Your task to perform on an android device: turn off notifications in google photos Image 0: 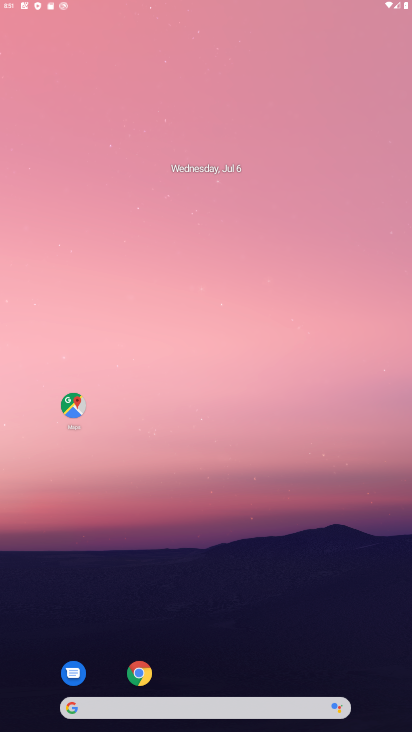
Step 0: click (276, 127)
Your task to perform on an android device: turn off notifications in google photos Image 1: 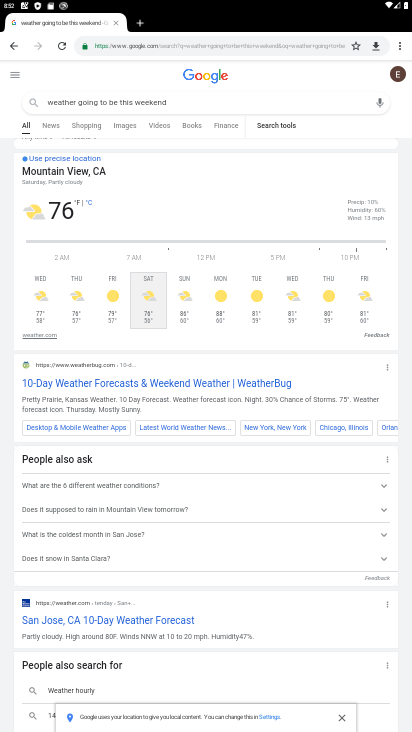
Step 1: drag from (232, 646) to (260, 477)
Your task to perform on an android device: turn off notifications in google photos Image 2: 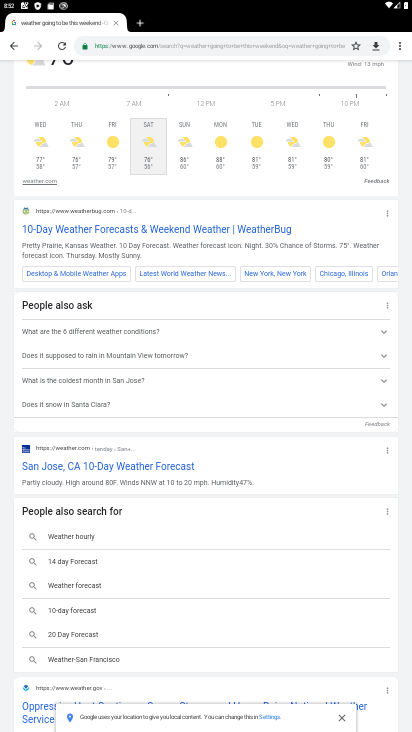
Step 2: press home button
Your task to perform on an android device: turn off notifications in google photos Image 3: 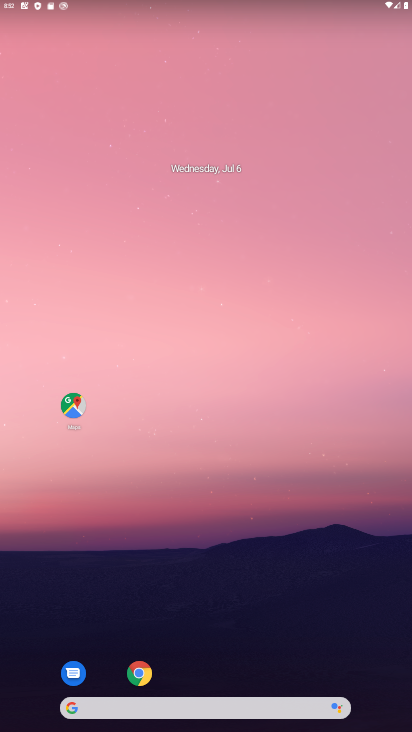
Step 3: drag from (240, 631) to (245, 232)
Your task to perform on an android device: turn off notifications in google photos Image 4: 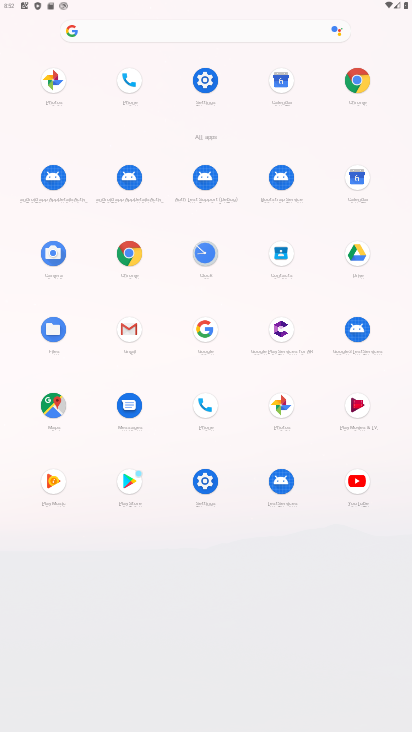
Step 4: click (280, 407)
Your task to perform on an android device: turn off notifications in google photos Image 5: 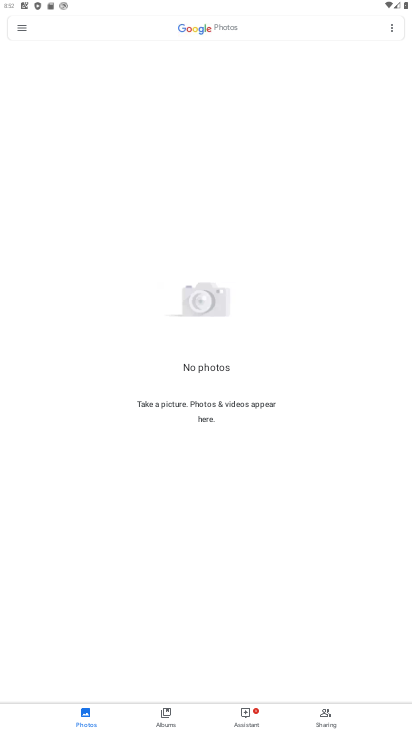
Step 5: click (20, 29)
Your task to perform on an android device: turn off notifications in google photos Image 6: 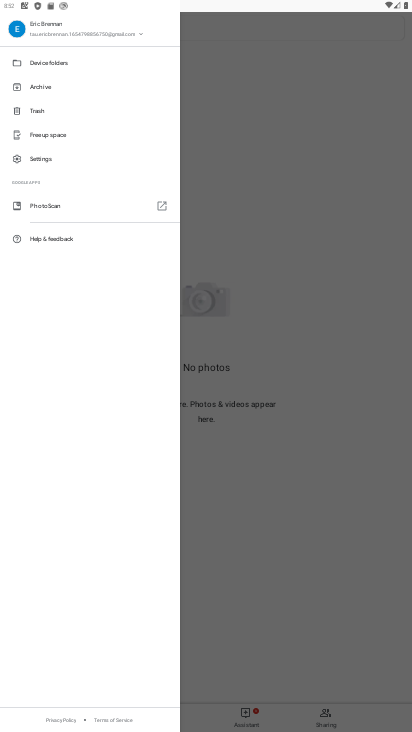
Step 6: click (42, 157)
Your task to perform on an android device: turn off notifications in google photos Image 7: 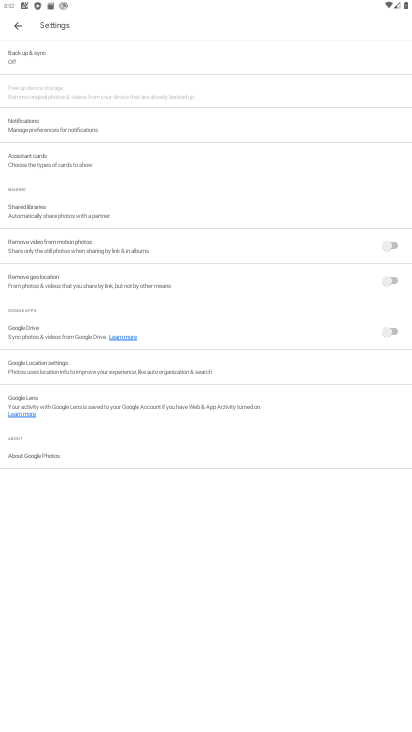
Step 7: drag from (299, 226) to (61, 209)
Your task to perform on an android device: turn off notifications in google photos Image 8: 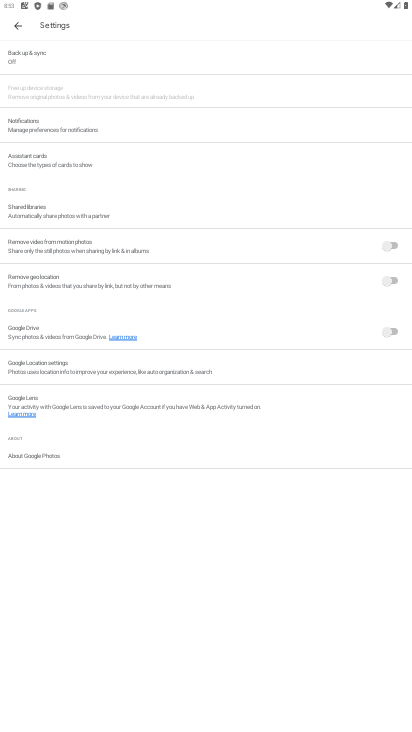
Step 8: click (16, 116)
Your task to perform on an android device: turn off notifications in google photos Image 9: 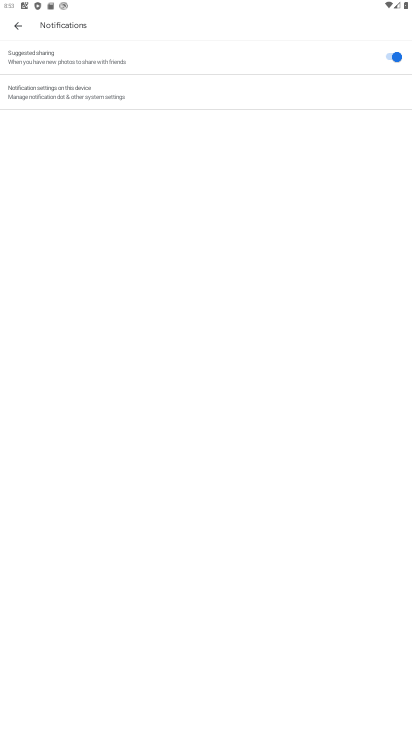
Step 9: drag from (184, 216) to (282, 74)
Your task to perform on an android device: turn off notifications in google photos Image 10: 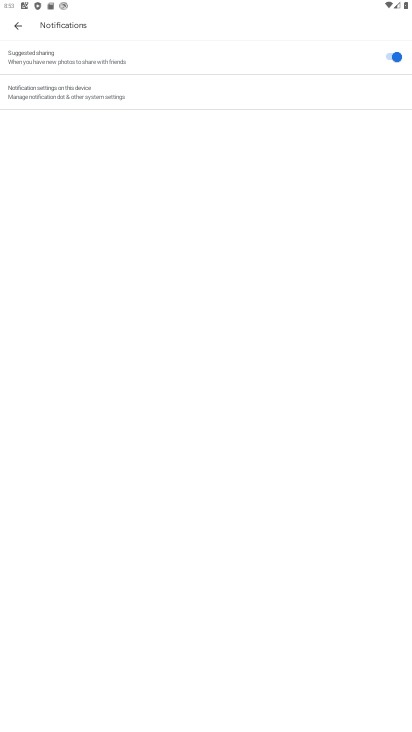
Step 10: click (8, 16)
Your task to perform on an android device: turn off notifications in google photos Image 11: 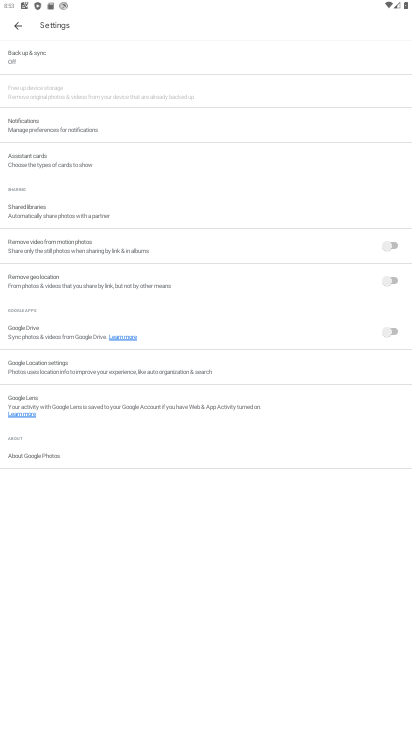
Step 11: drag from (178, 251) to (151, 287)
Your task to perform on an android device: turn off notifications in google photos Image 12: 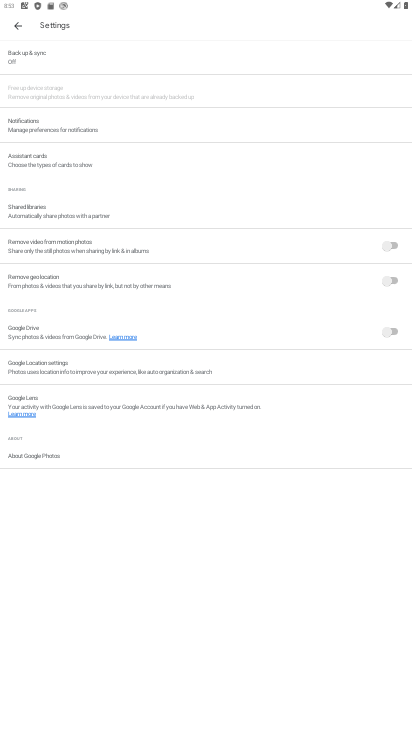
Step 12: click (86, 119)
Your task to perform on an android device: turn off notifications in google photos Image 13: 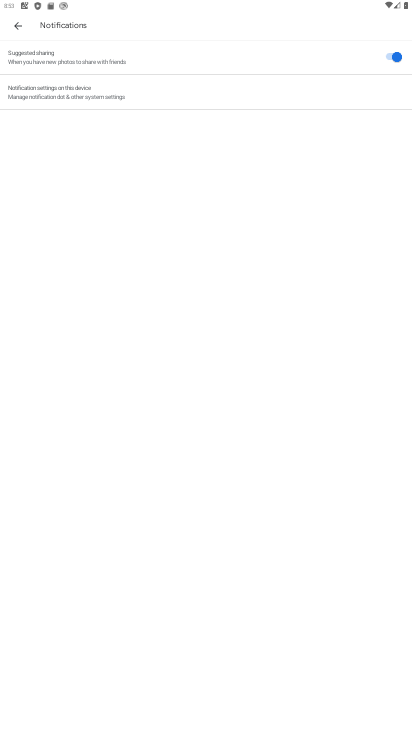
Step 13: click (397, 51)
Your task to perform on an android device: turn off notifications in google photos Image 14: 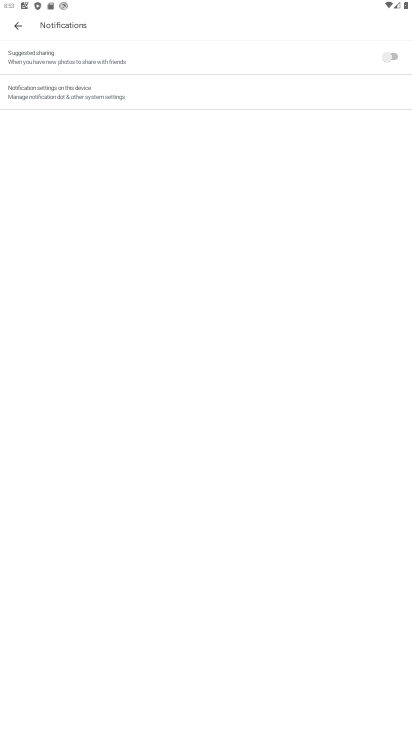
Step 14: task complete